Your task to perform on an android device: Go to Google maps Image 0: 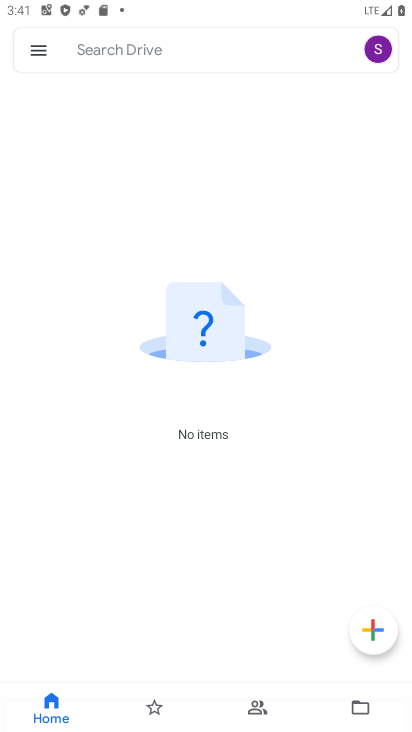
Step 0: press home button
Your task to perform on an android device: Go to Google maps Image 1: 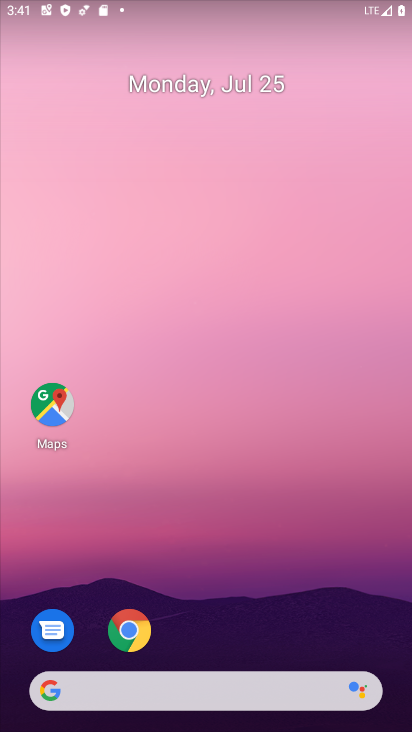
Step 1: click (60, 392)
Your task to perform on an android device: Go to Google maps Image 2: 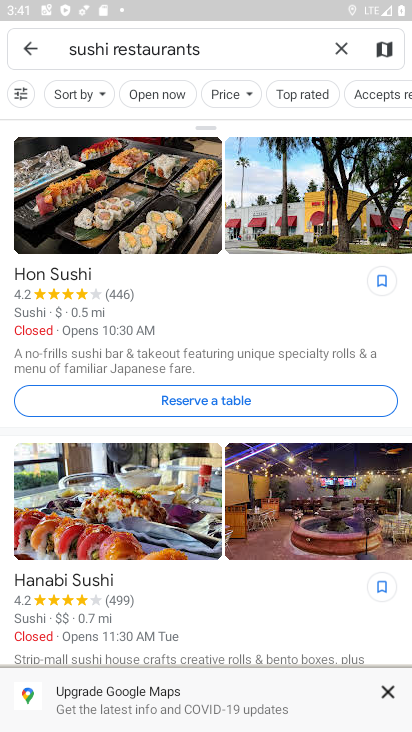
Step 2: task complete